Your task to perform on an android device: toggle data saver in the chrome app Image 0: 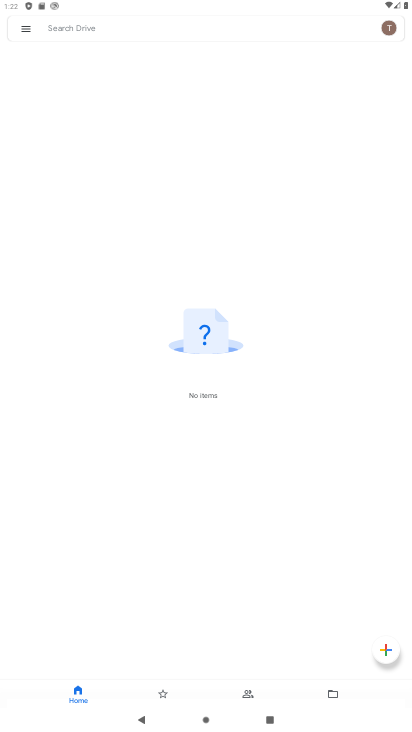
Step 0: press home button
Your task to perform on an android device: toggle data saver in the chrome app Image 1: 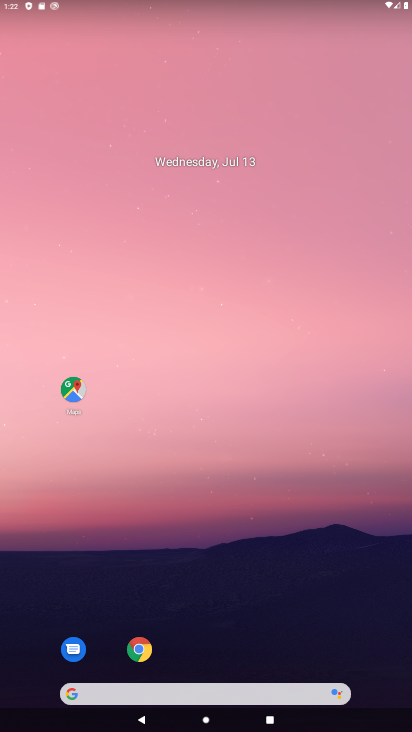
Step 1: click (143, 653)
Your task to perform on an android device: toggle data saver in the chrome app Image 2: 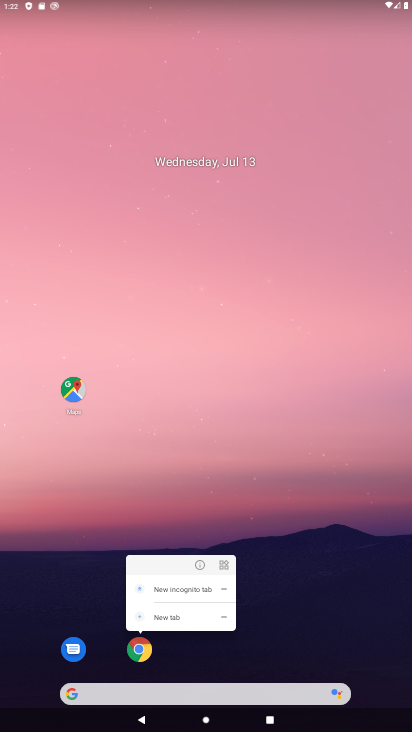
Step 2: click (140, 644)
Your task to perform on an android device: toggle data saver in the chrome app Image 3: 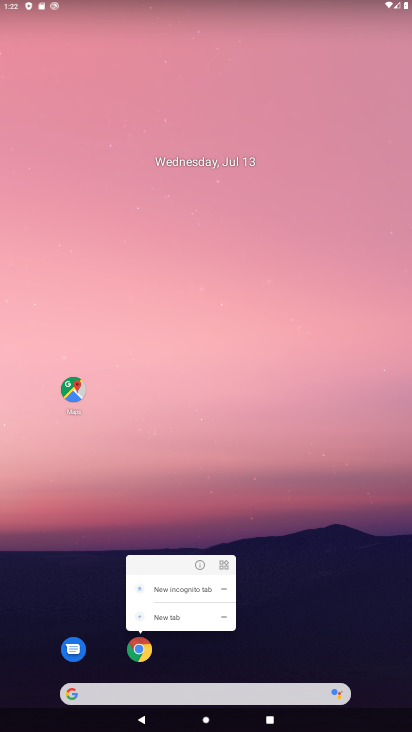
Step 3: click (139, 649)
Your task to perform on an android device: toggle data saver in the chrome app Image 4: 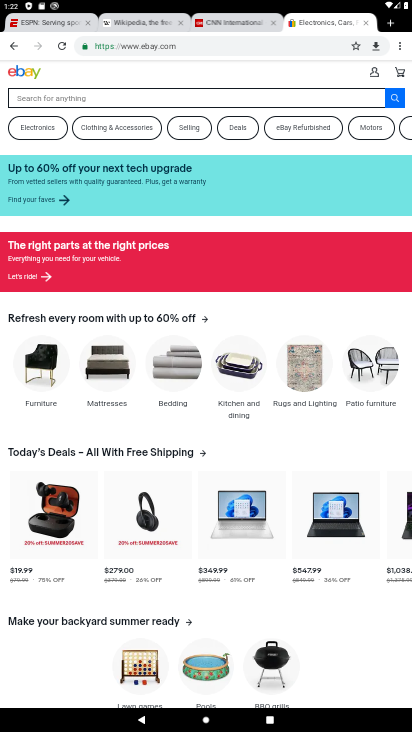
Step 4: drag from (405, 45) to (312, 316)
Your task to perform on an android device: toggle data saver in the chrome app Image 5: 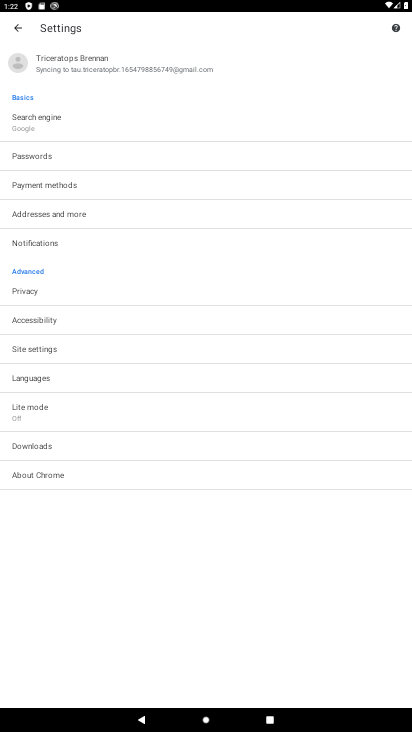
Step 5: click (71, 422)
Your task to perform on an android device: toggle data saver in the chrome app Image 6: 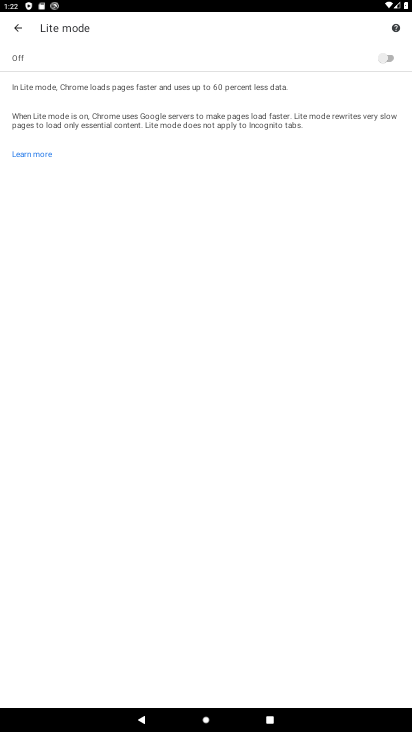
Step 6: click (400, 54)
Your task to perform on an android device: toggle data saver in the chrome app Image 7: 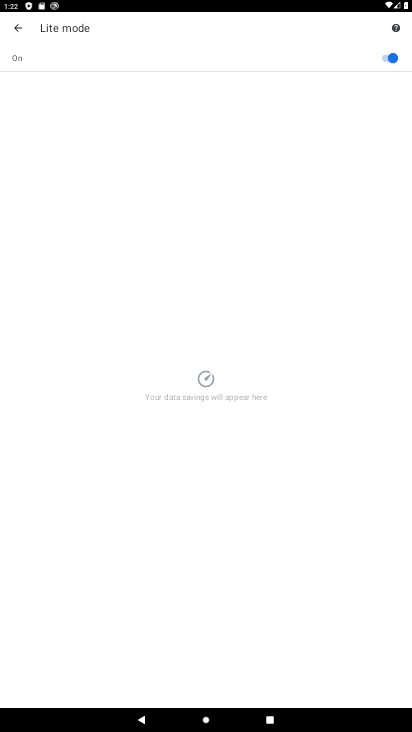
Step 7: task complete